Your task to perform on an android device: make emails show in primary in the gmail app Image 0: 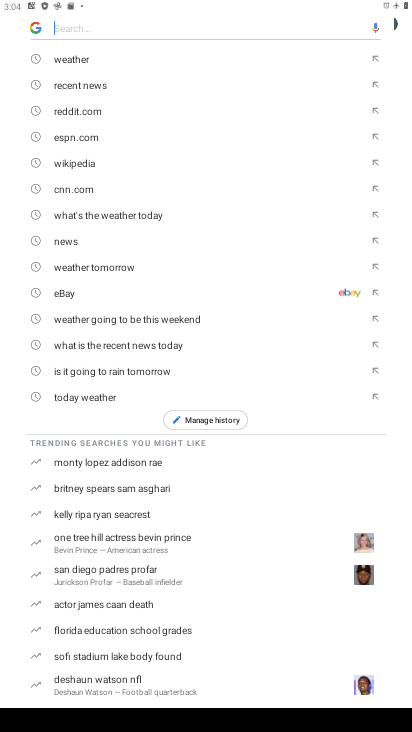
Step 0: press back button
Your task to perform on an android device: make emails show in primary in the gmail app Image 1: 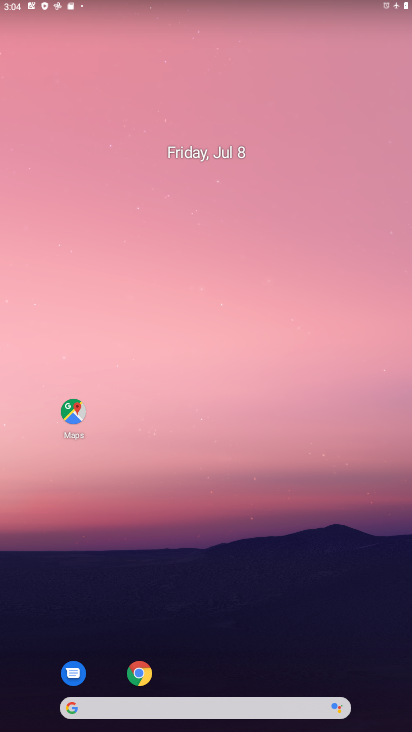
Step 1: drag from (378, 672) to (293, 158)
Your task to perform on an android device: make emails show in primary in the gmail app Image 2: 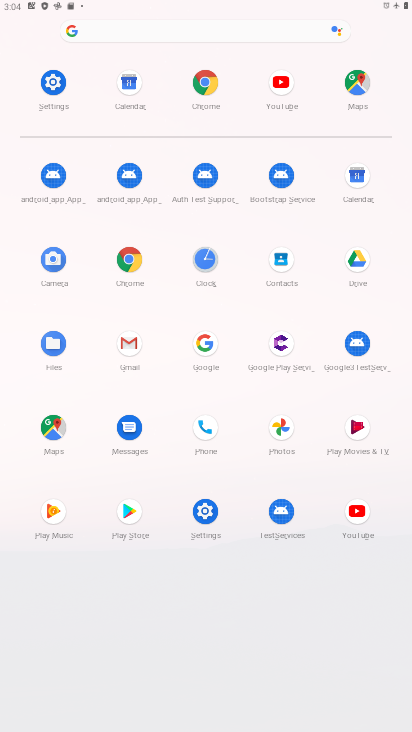
Step 2: click (123, 340)
Your task to perform on an android device: make emails show in primary in the gmail app Image 3: 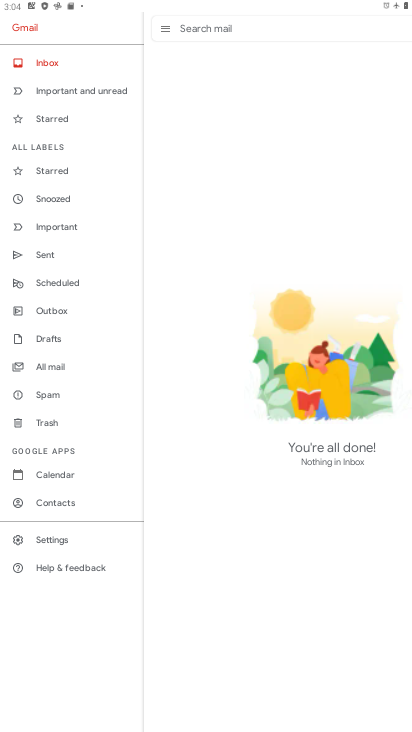
Step 3: task complete